Your task to perform on an android device: turn on bluetooth scan Image 0: 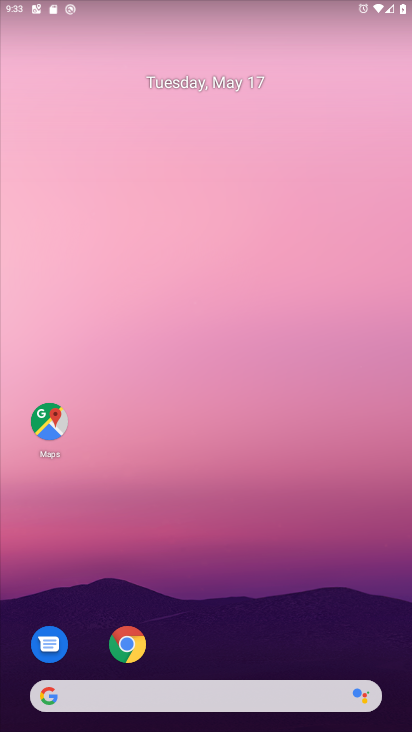
Step 0: drag from (221, 660) to (199, 29)
Your task to perform on an android device: turn on bluetooth scan Image 1: 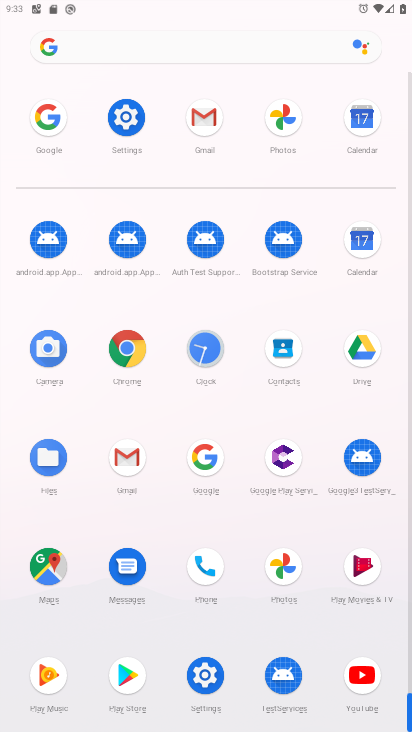
Step 1: click (206, 669)
Your task to perform on an android device: turn on bluetooth scan Image 2: 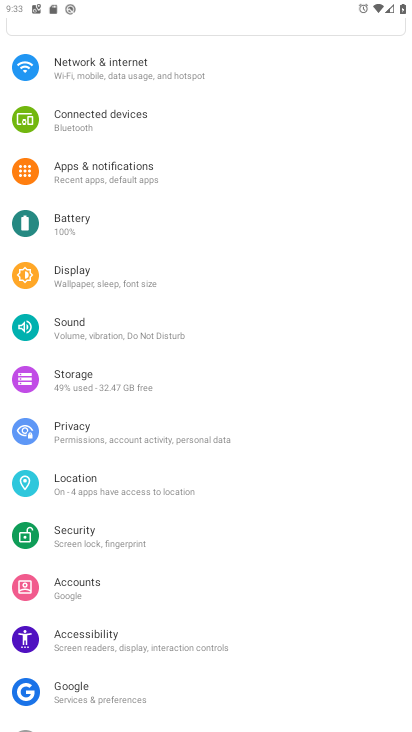
Step 2: click (103, 481)
Your task to perform on an android device: turn on bluetooth scan Image 3: 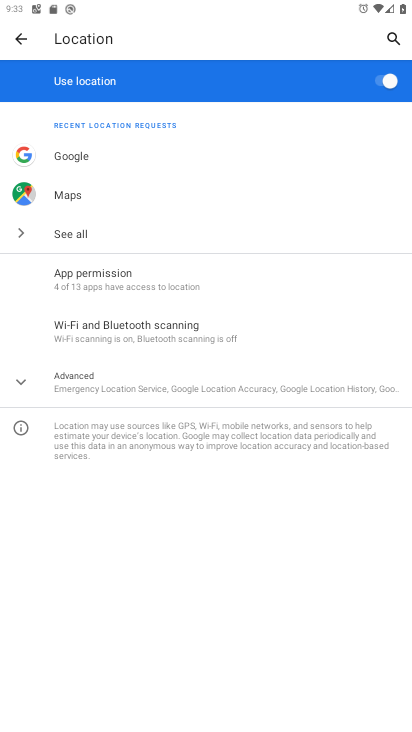
Step 3: click (52, 379)
Your task to perform on an android device: turn on bluetooth scan Image 4: 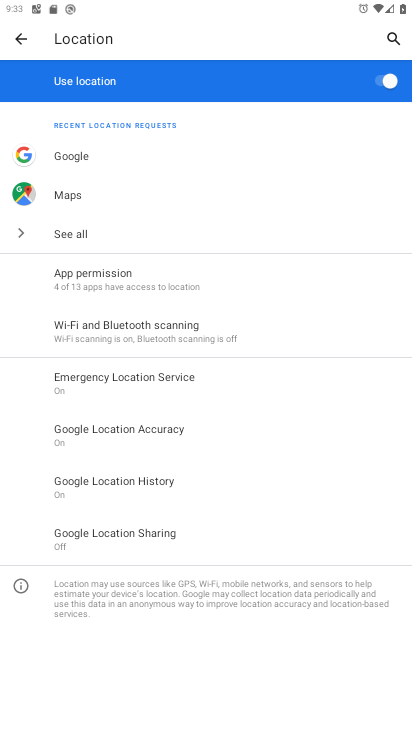
Step 4: click (181, 334)
Your task to perform on an android device: turn on bluetooth scan Image 5: 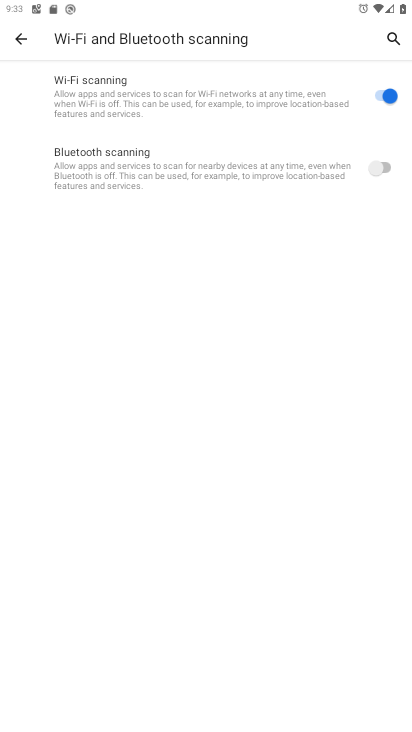
Step 5: click (381, 166)
Your task to perform on an android device: turn on bluetooth scan Image 6: 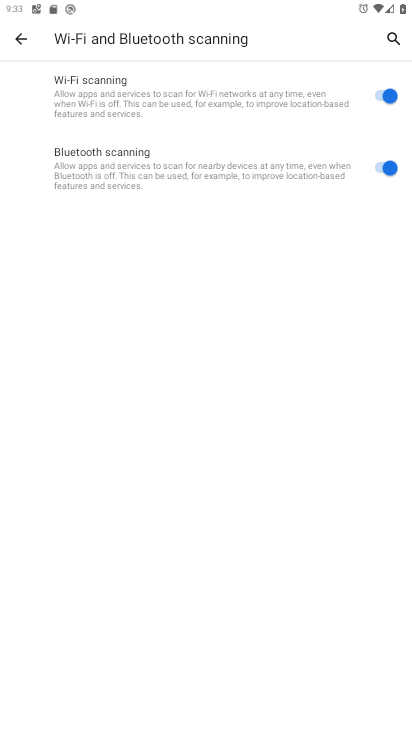
Step 6: task complete